Your task to perform on an android device: change the clock display to digital Image 0: 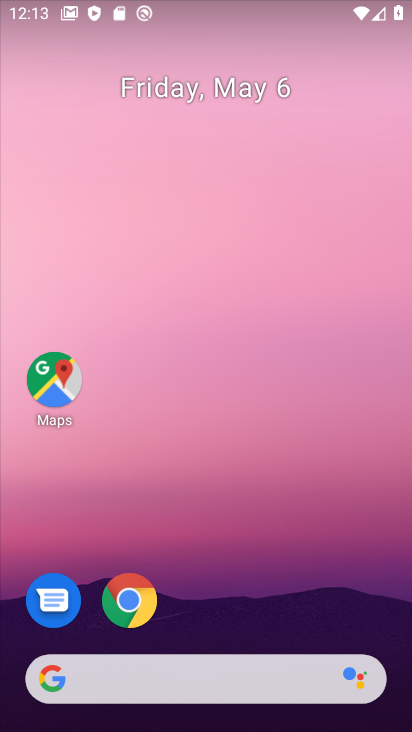
Step 0: drag from (195, 655) to (302, 108)
Your task to perform on an android device: change the clock display to digital Image 1: 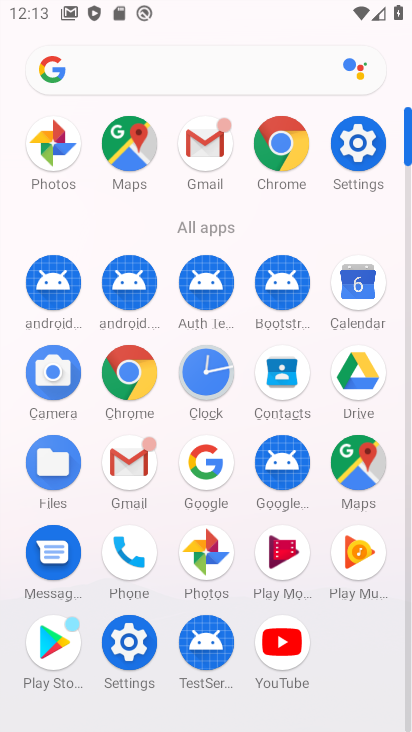
Step 1: click (211, 382)
Your task to perform on an android device: change the clock display to digital Image 2: 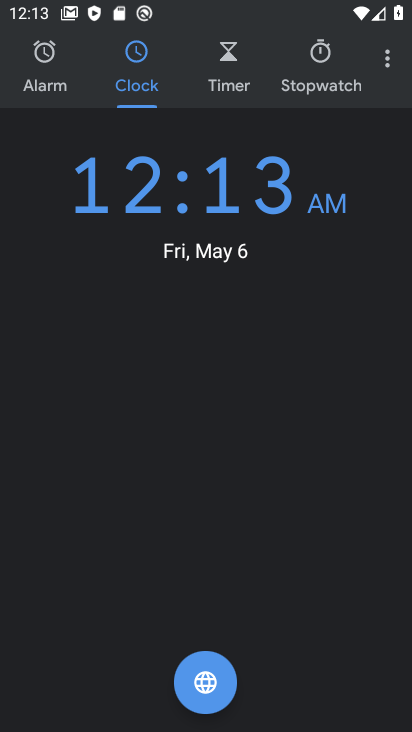
Step 2: click (381, 61)
Your task to perform on an android device: change the clock display to digital Image 3: 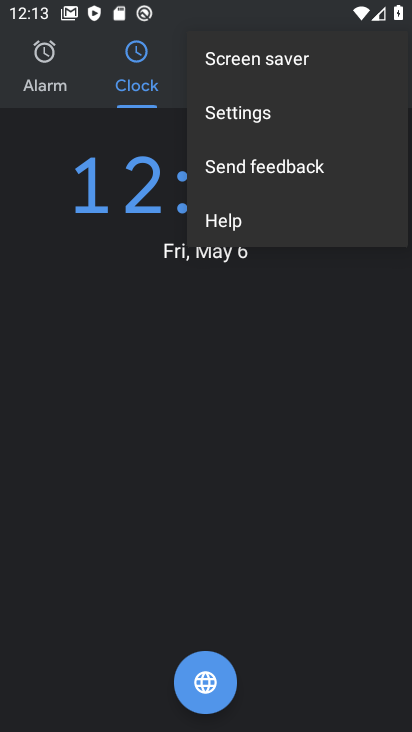
Step 3: click (297, 116)
Your task to perform on an android device: change the clock display to digital Image 4: 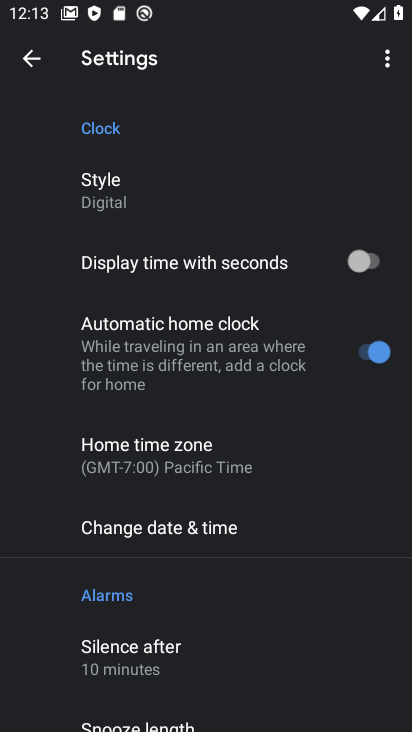
Step 4: click (125, 181)
Your task to perform on an android device: change the clock display to digital Image 5: 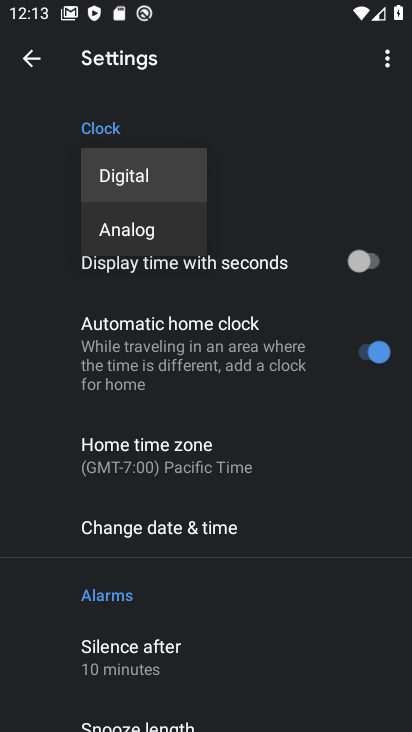
Step 5: click (125, 182)
Your task to perform on an android device: change the clock display to digital Image 6: 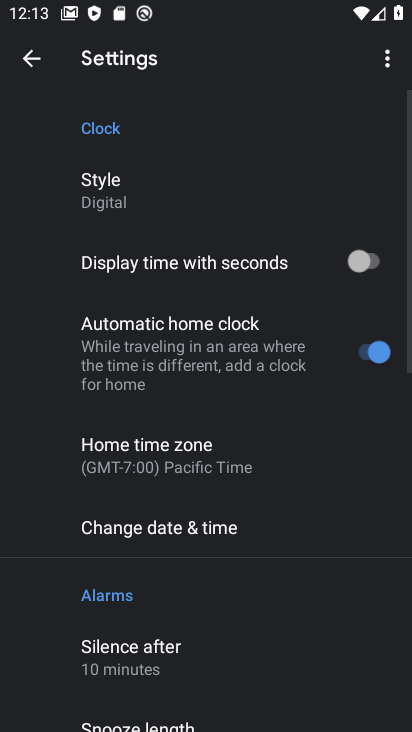
Step 6: task complete